Your task to perform on an android device: Go to battery settings Image 0: 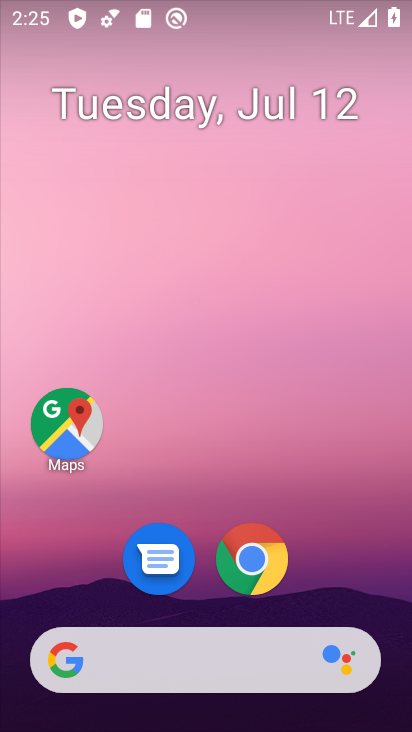
Step 0: drag from (373, 586) to (370, 222)
Your task to perform on an android device: Go to battery settings Image 1: 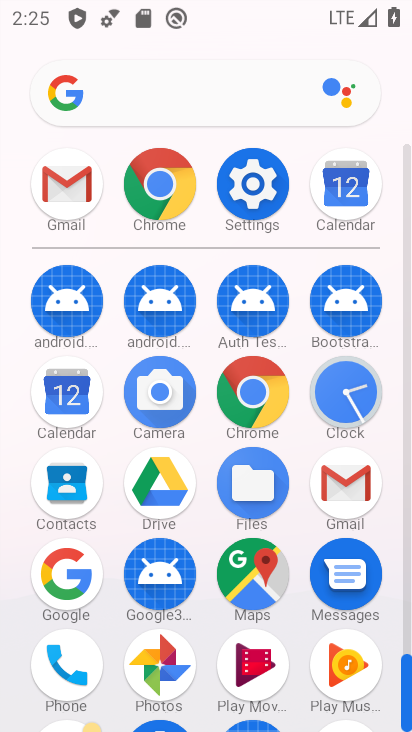
Step 1: click (262, 212)
Your task to perform on an android device: Go to battery settings Image 2: 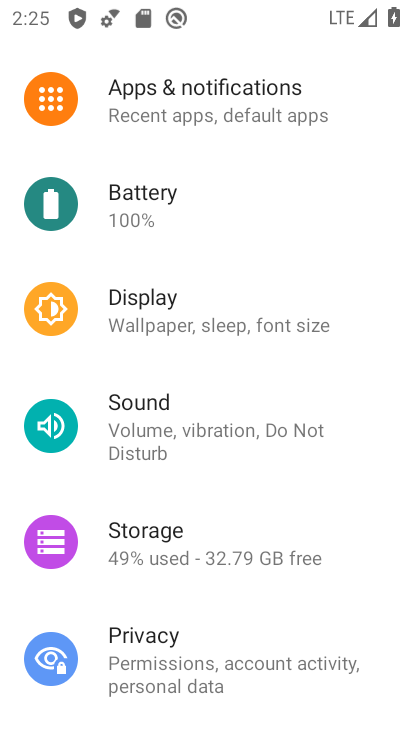
Step 2: drag from (367, 346) to (364, 422)
Your task to perform on an android device: Go to battery settings Image 3: 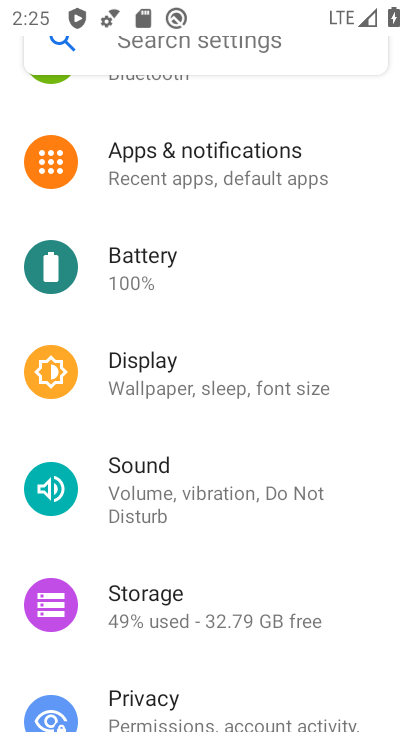
Step 3: drag from (364, 257) to (364, 346)
Your task to perform on an android device: Go to battery settings Image 4: 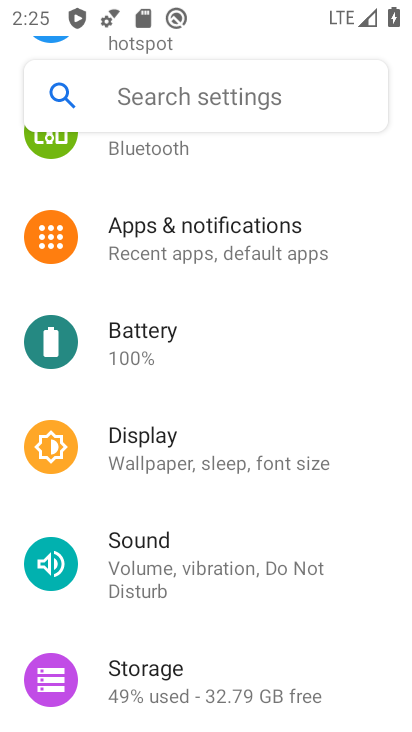
Step 4: drag from (366, 273) to (363, 372)
Your task to perform on an android device: Go to battery settings Image 5: 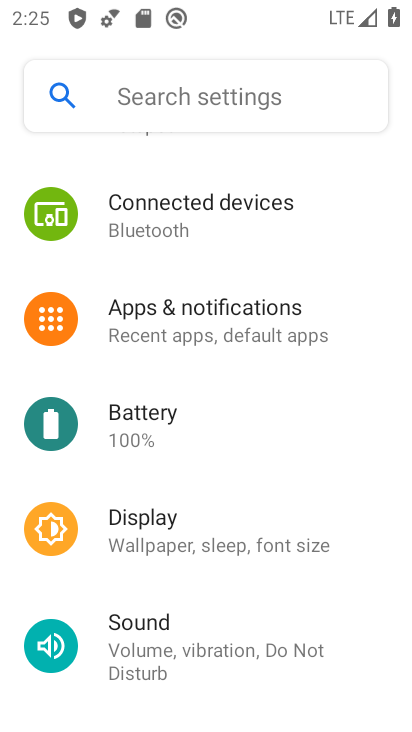
Step 5: drag from (360, 249) to (356, 392)
Your task to perform on an android device: Go to battery settings Image 6: 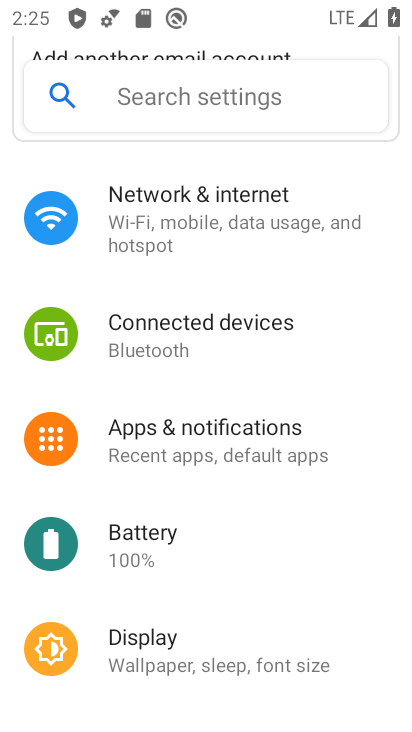
Step 6: drag from (358, 242) to (354, 382)
Your task to perform on an android device: Go to battery settings Image 7: 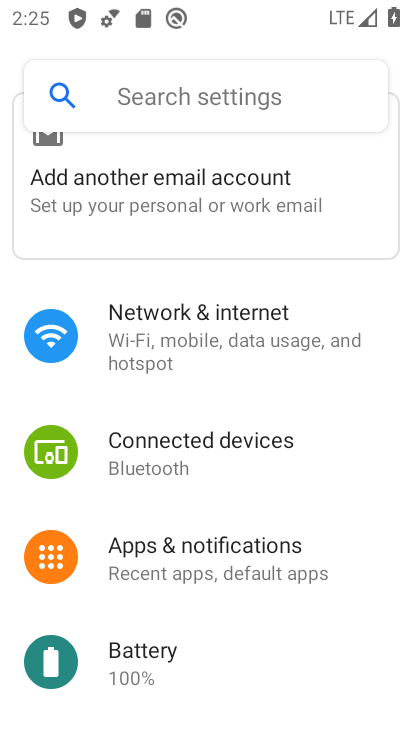
Step 7: drag from (361, 482) to (349, 329)
Your task to perform on an android device: Go to battery settings Image 8: 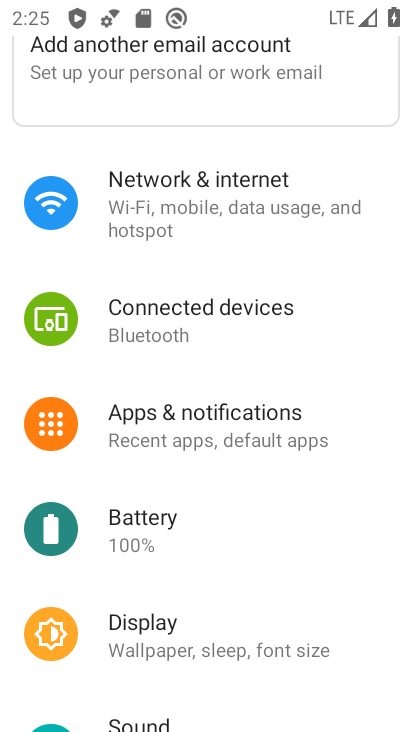
Step 8: click (201, 546)
Your task to perform on an android device: Go to battery settings Image 9: 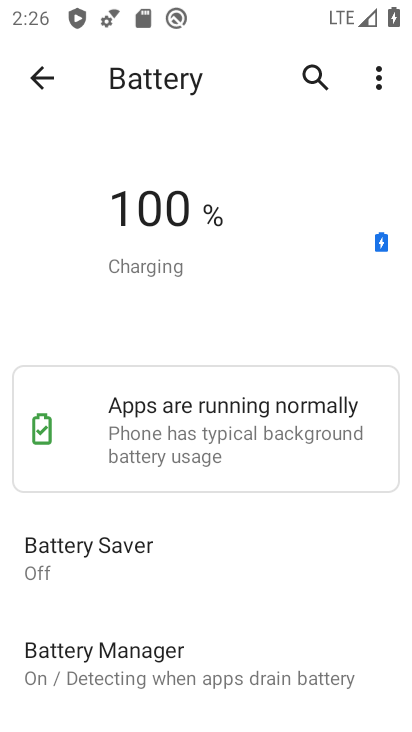
Step 9: task complete